Your task to perform on an android device: show emergency info Image 0: 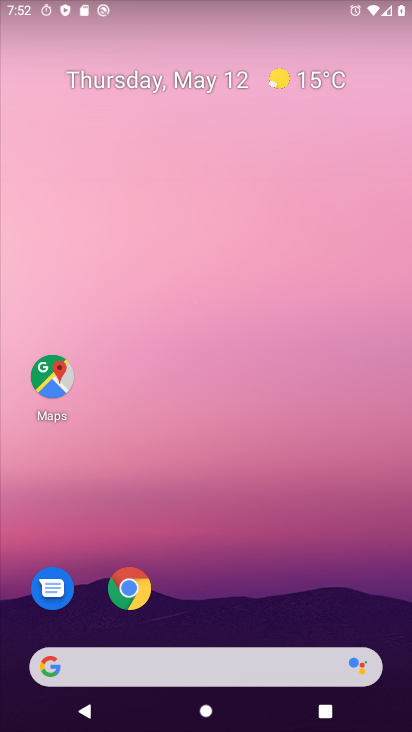
Step 0: drag from (209, 614) to (246, 176)
Your task to perform on an android device: show emergency info Image 1: 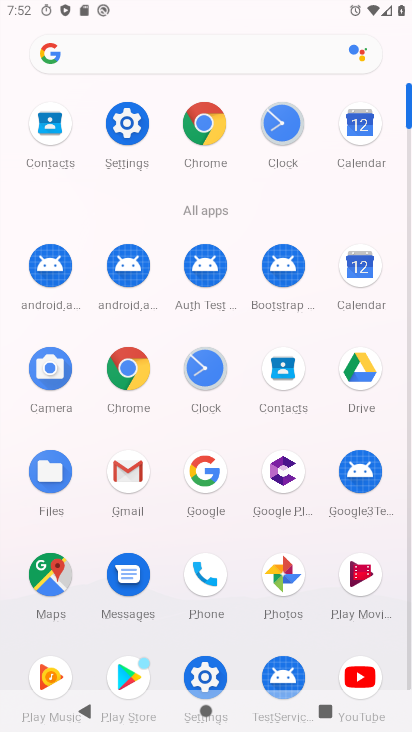
Step 1: click (120, 168)
Your task to perform on an android device: show emergency info Image 2: 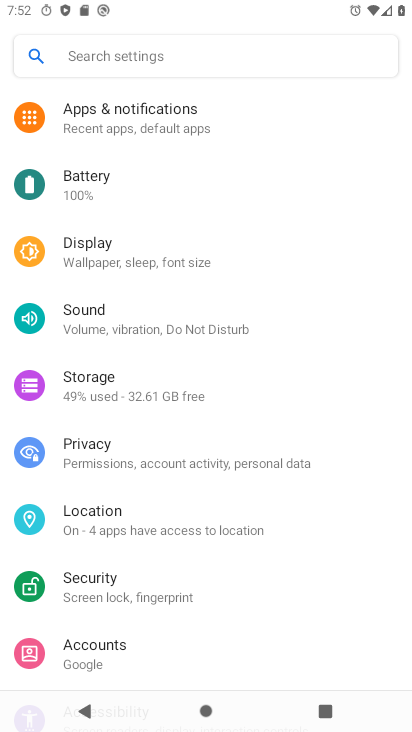
Step 2: drag from (208, 587) to (324, 215)
Your task to perform on an android device: show emergency info Image 3: 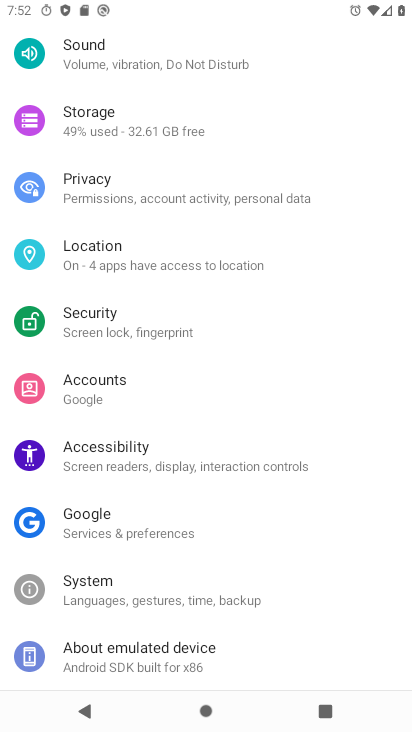
Step 3: click (206, 660)
Your task to perform on an android device: show emergency info Image 4: 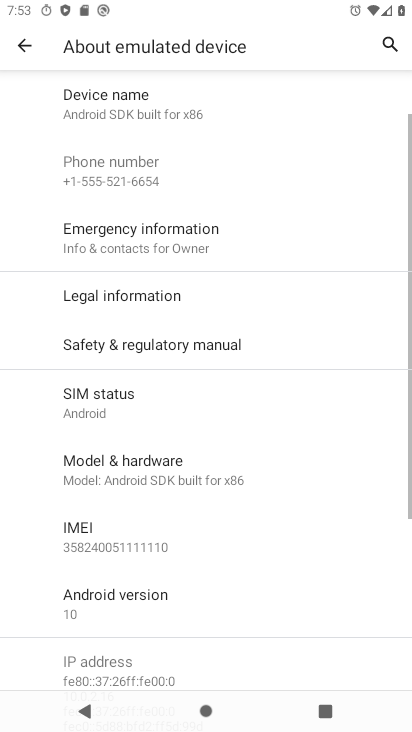
Step 4: click (164, 239)
Your task to perform on an android device: show emergency info Image 5: 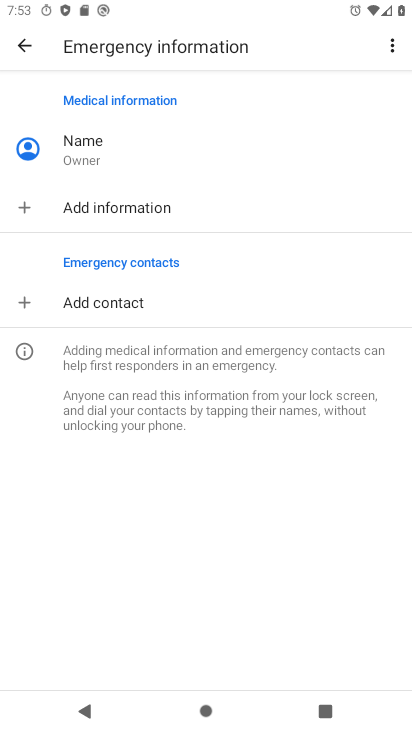
Step 5: task complete